Your task to perform on an android device: What's the latest technology news? Image 0: 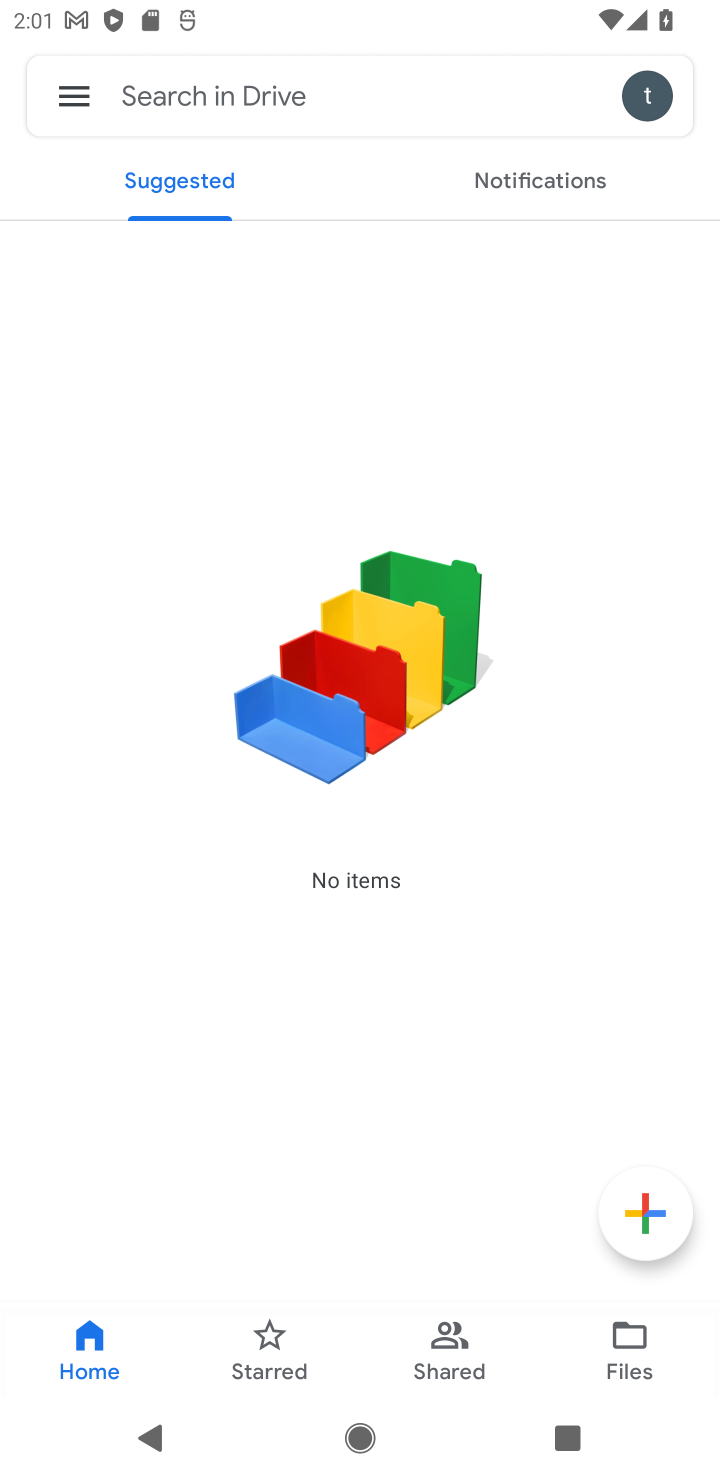
Step 0: press home button
Your task to perform on an android device: What's the latest technology news? Image 1: 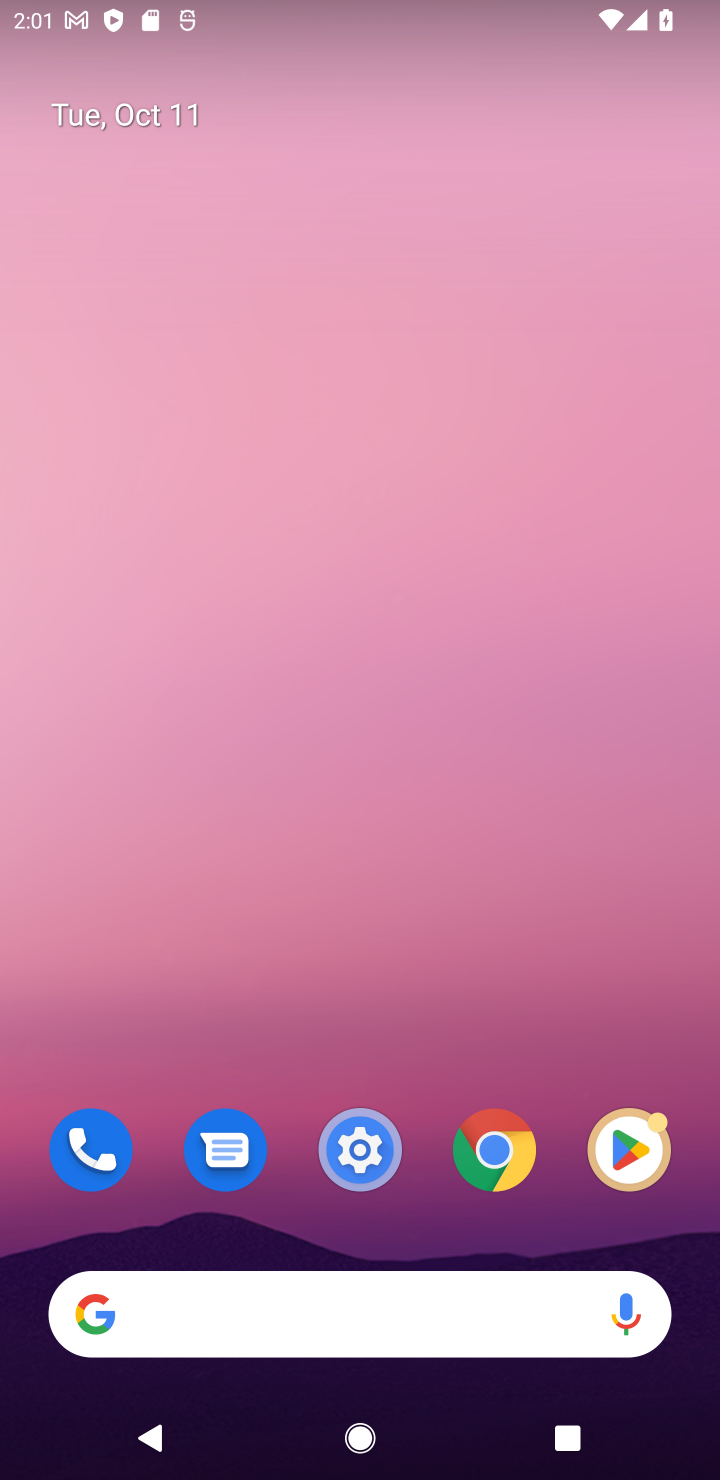
Step 1: drag from (285, 1263) to (267, 505)
Your task to perform on an android device: What's the latest technology news? Image 2: 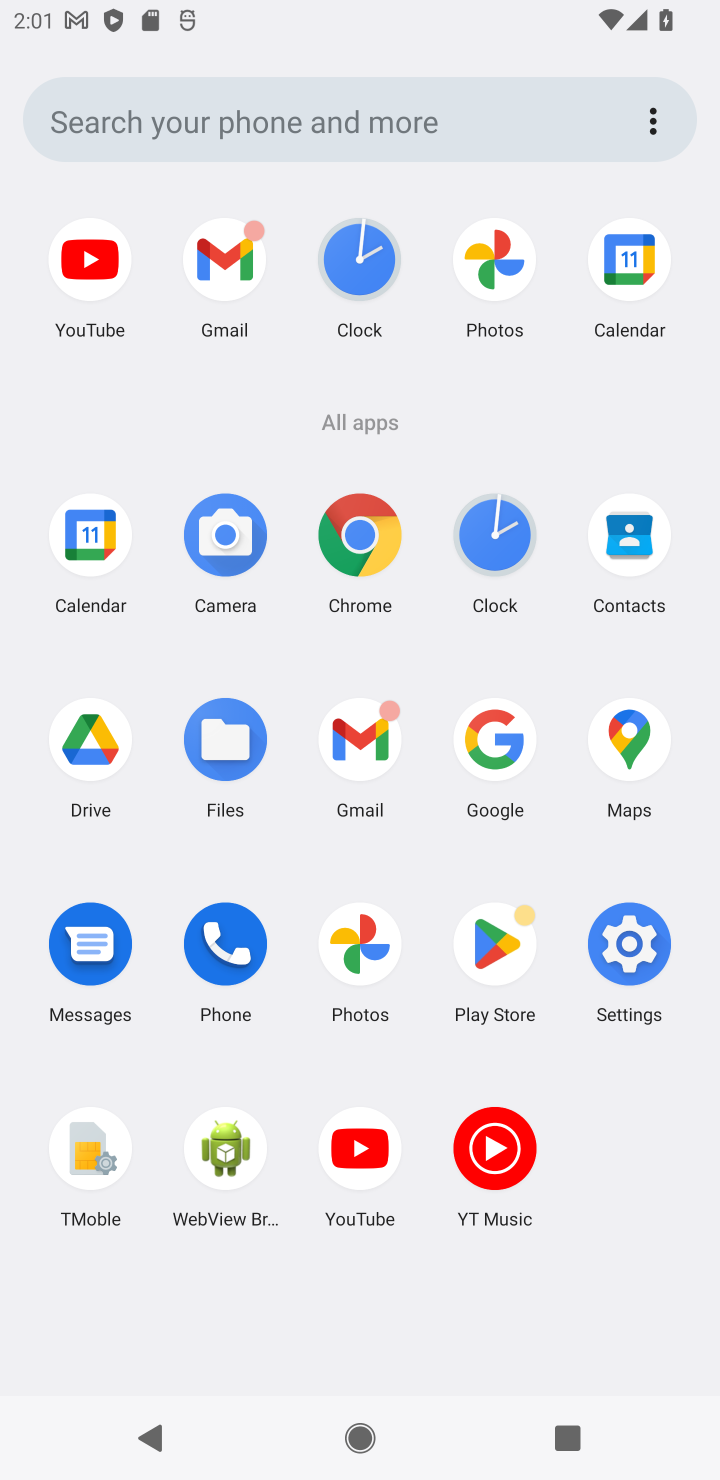
Step 2: click (515, 742)
Your task to perform on an android device: What's the latest technology news? Image 3: 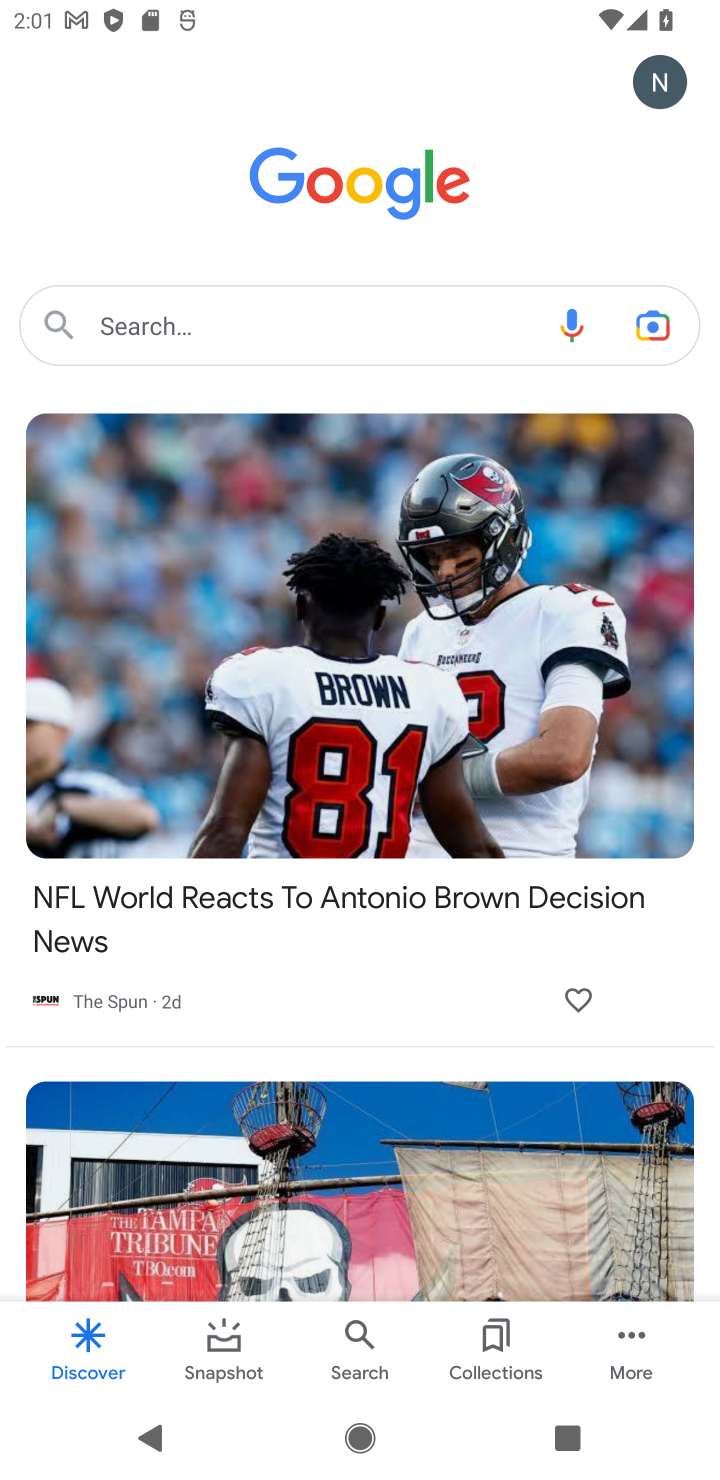
Step 3: click (214, 324)
Your task to perform on an android device: What's the latest technology news? Image 4: 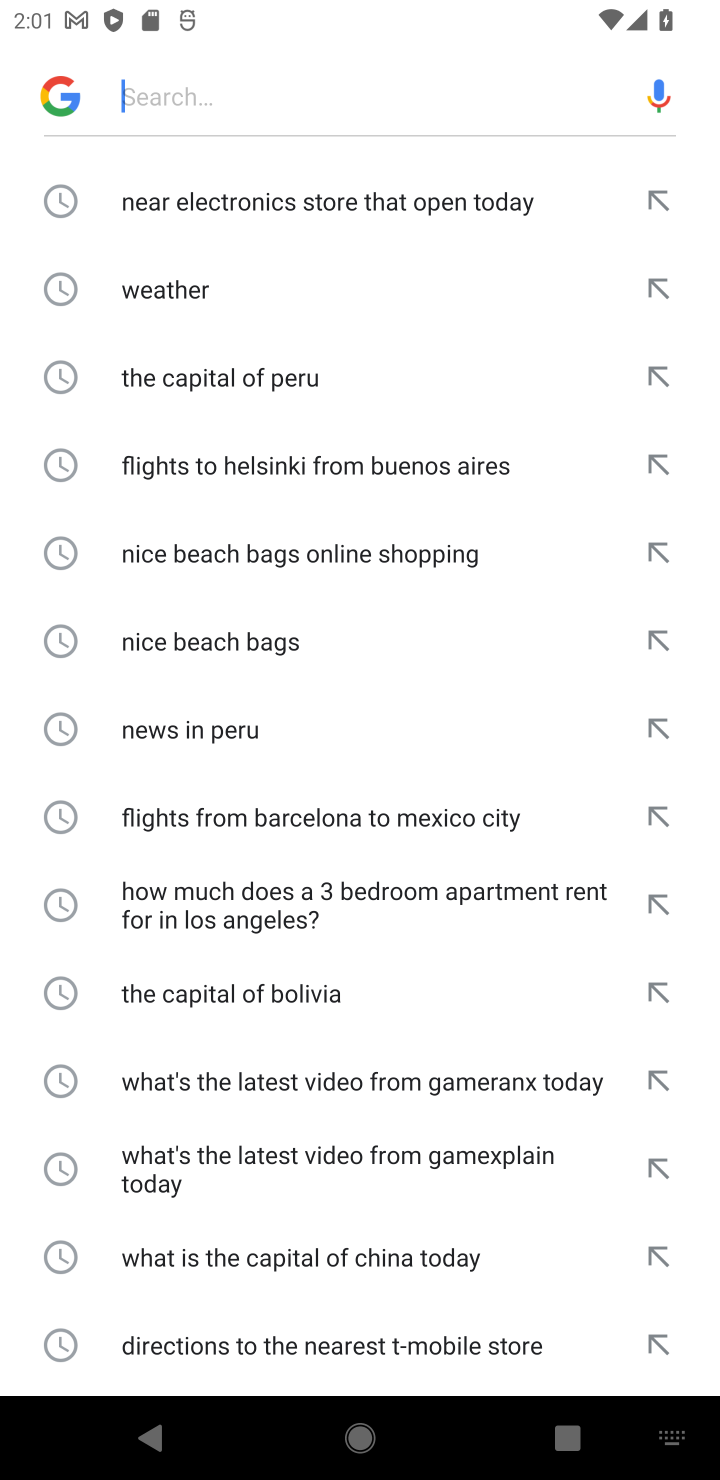
Step 4: type "What's the latest technology news?"
Your task to perform on an android device: What's the latest technology news? Image 5: 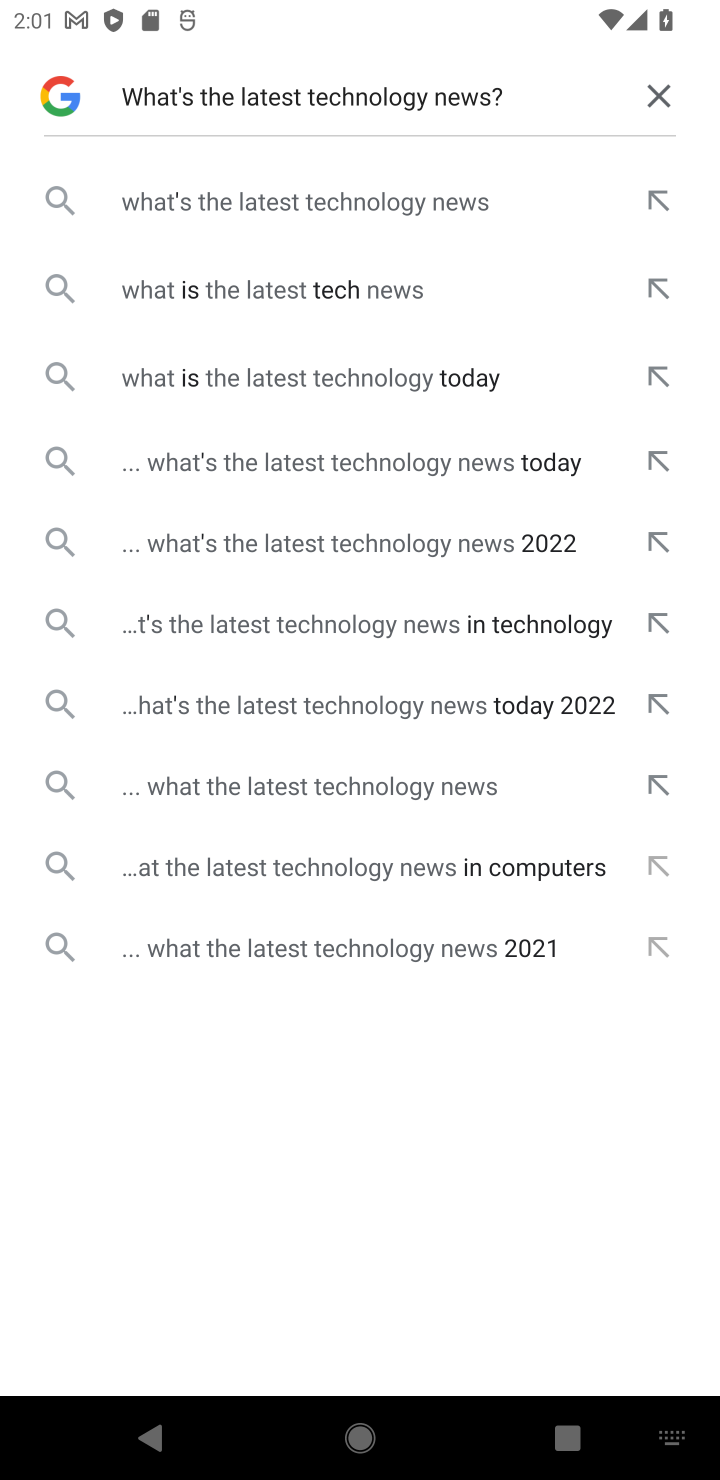
Step 5: click (222, 192)
Your task to perform on an android device: What's the latest technology news? Image 6: 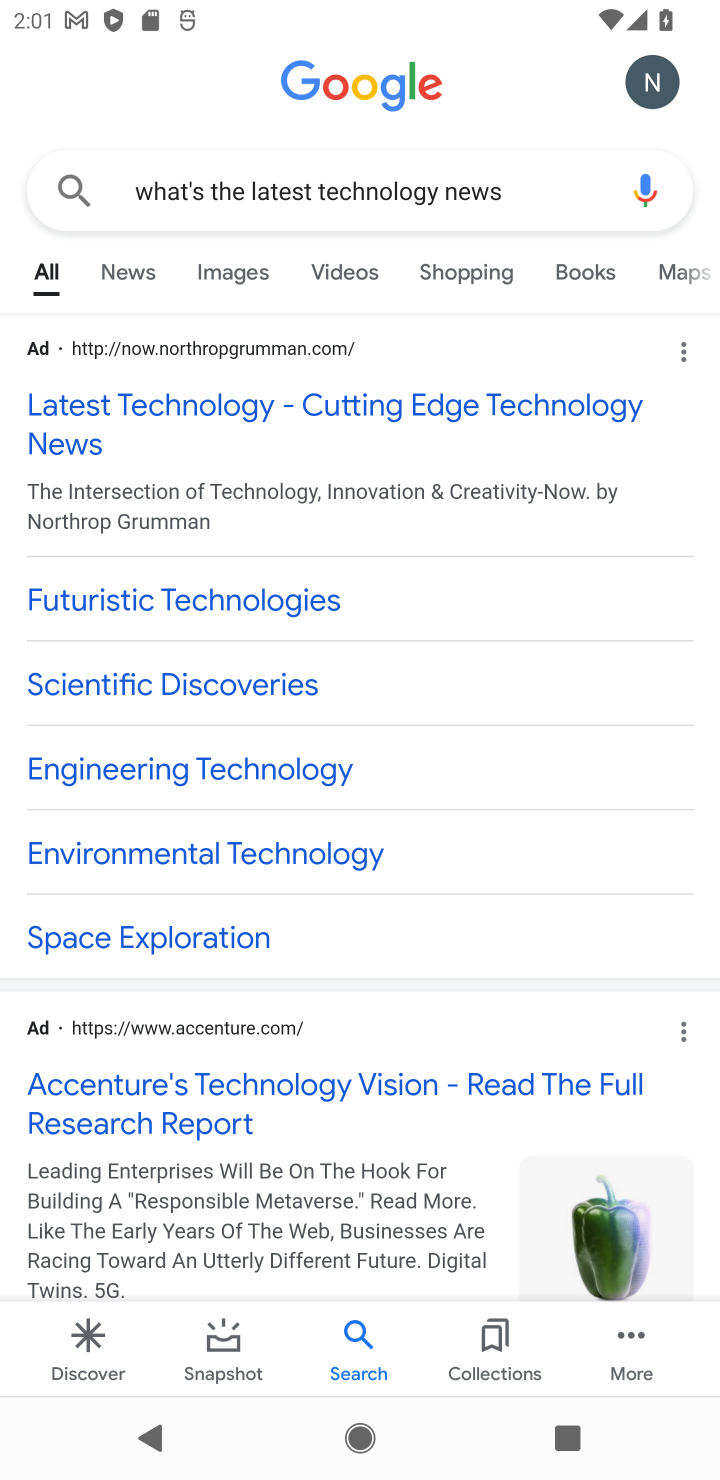
Step 6: click (272, 420)
Your task to perform on an android device: What's the latest technology news? Image 7: 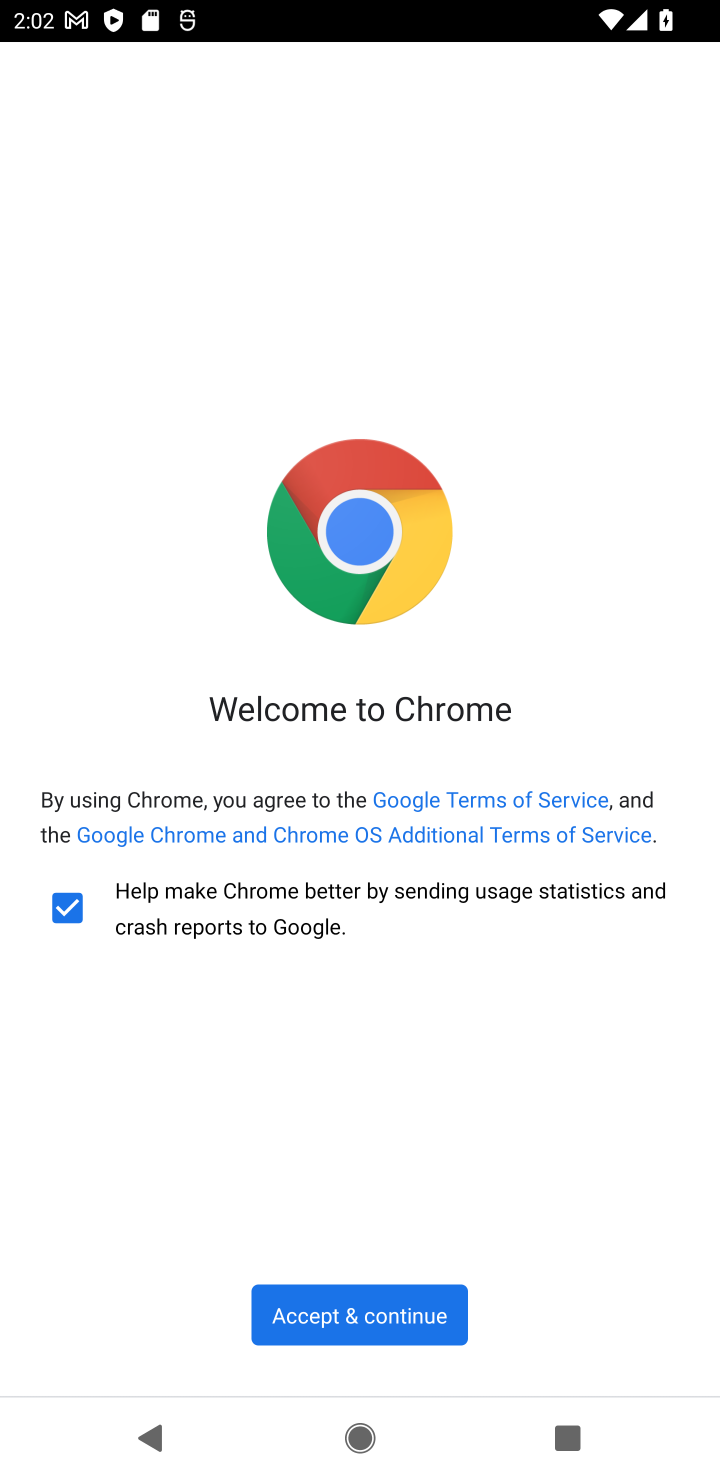
Step 7: click (379, 1318)
Your task to perform on an android device: What's the latest technology news? Image 8: 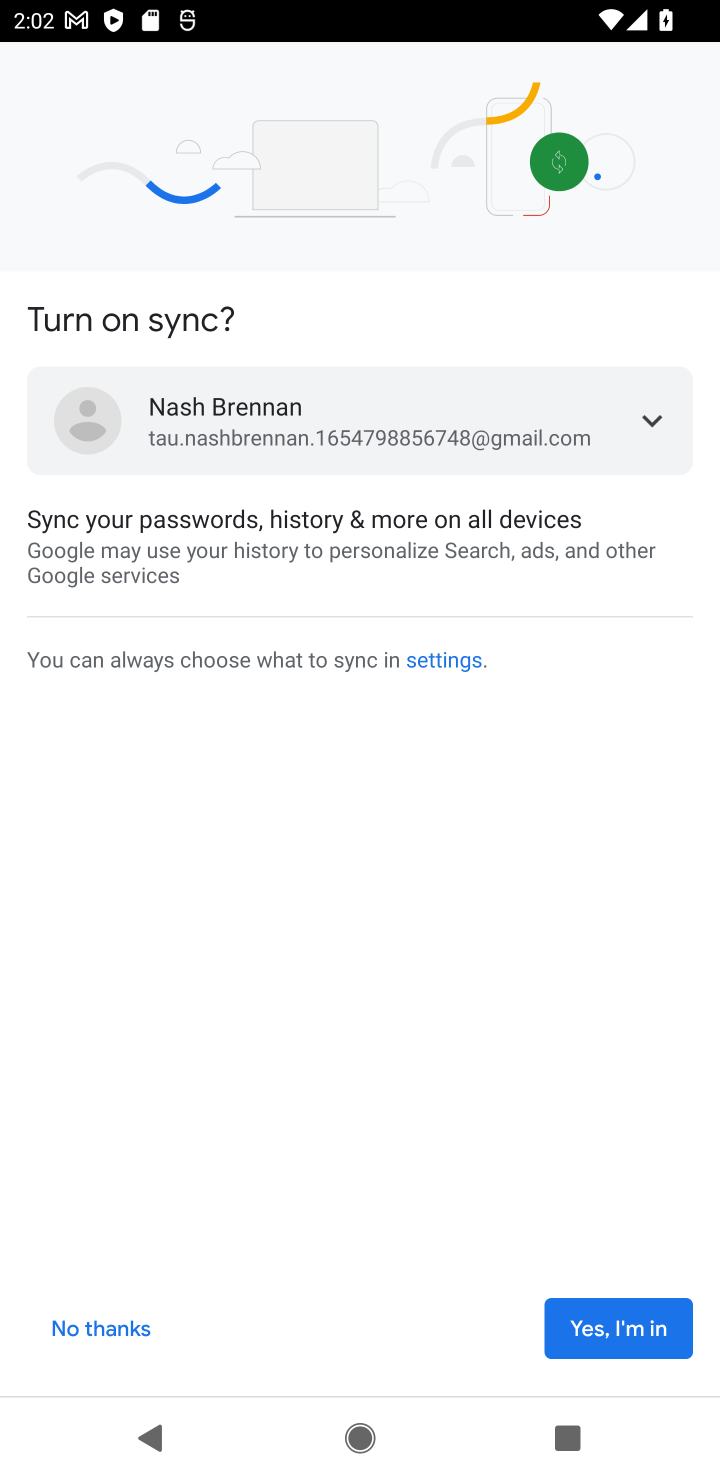
Step 8: click (582, 1323)
Your task to perform on an android device: What's the latest technology news? Image 9: 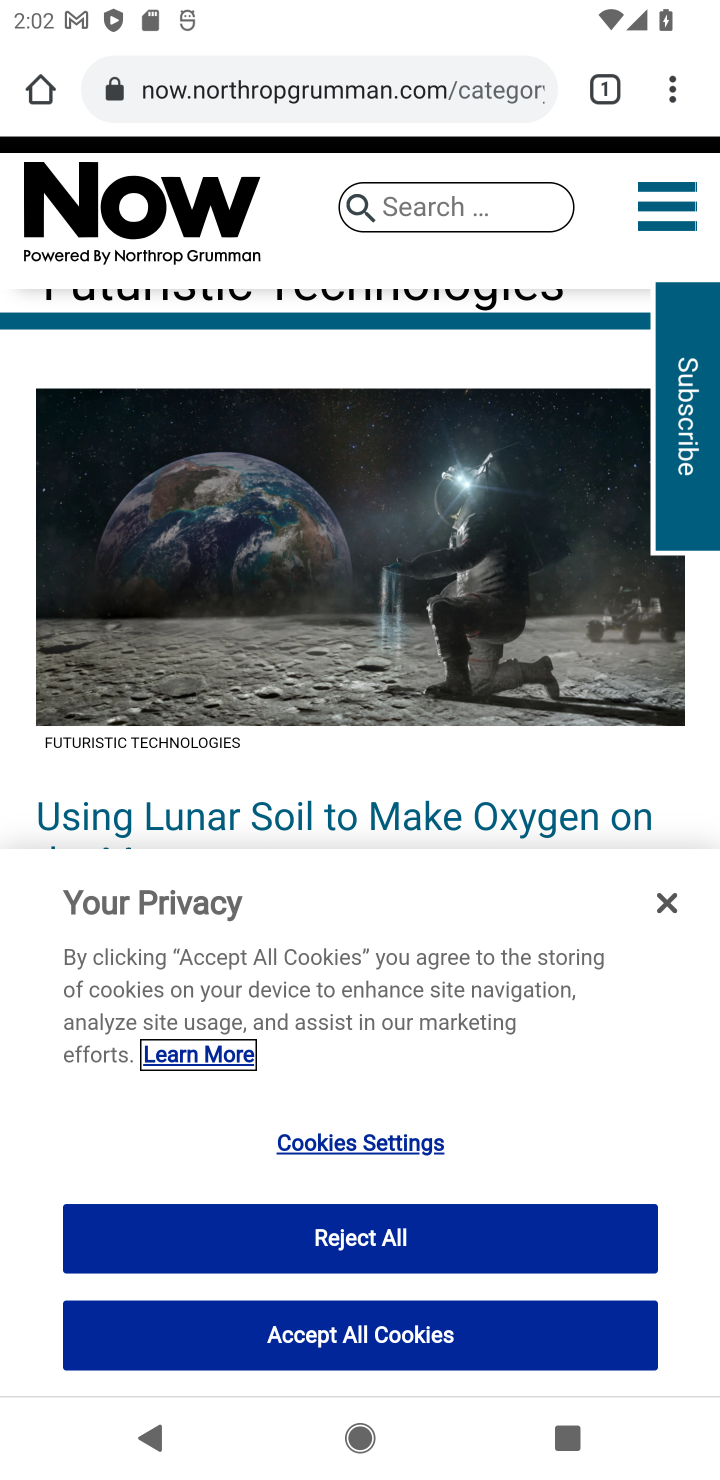
Step 9: click (664, 893)
Your task to perform on an android device: What's the latest technology news? Image 10: 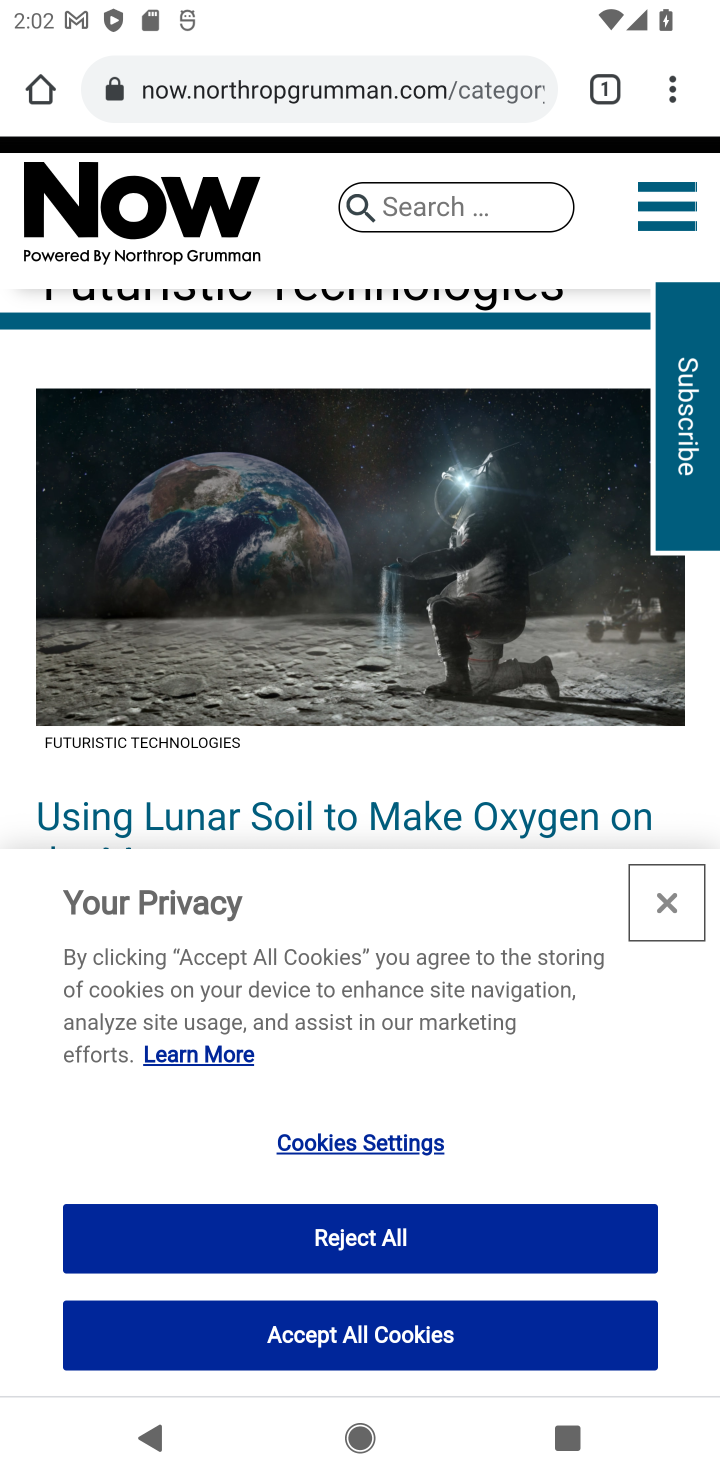
Step 10: task complete